Your task to perform on an android device: Find coffee shops on Maps Image 0: 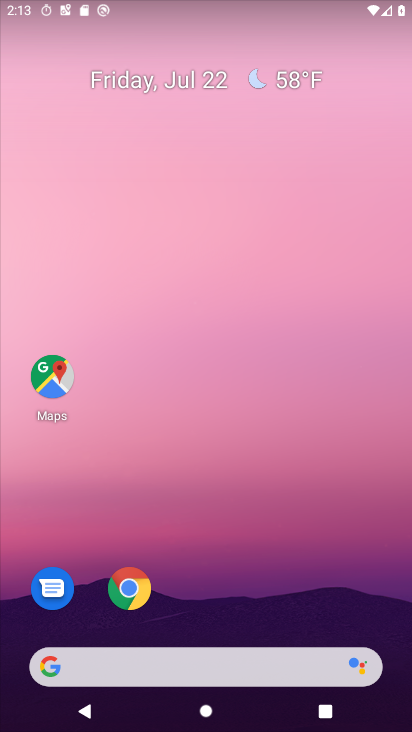
Step 0: press home button
Your task to perform on an android device: Find coffee shops on Maps Image 1: 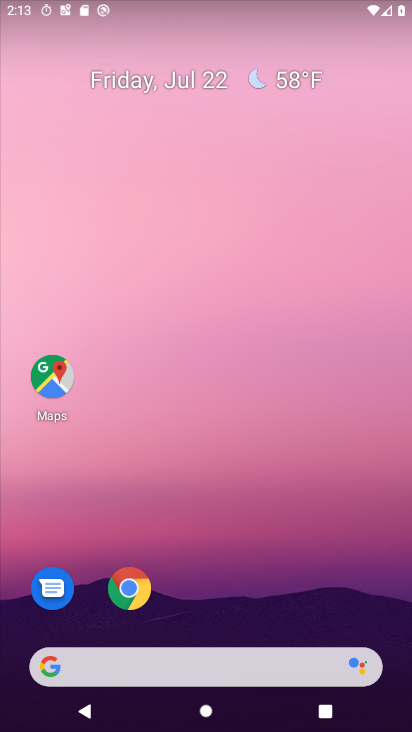
Step 1: click (49, 386)
Your task to perform on an android device: Find coffee shops on Maps Image 2: 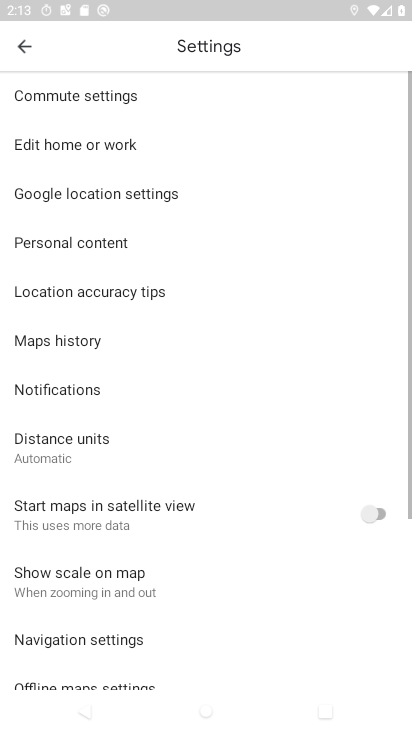
Step 2: click (22, 55)
Your task to perform on an android device: Find coffee shops on Maps Image 3: 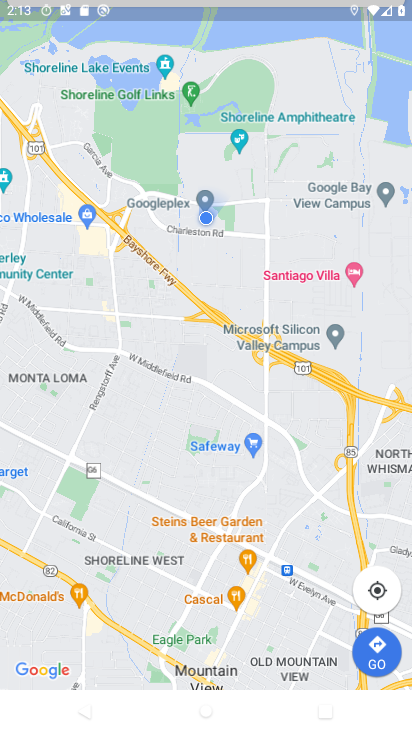
Step 3: click (22, 55)
Your task to perform on an android device: Find coffee shops on Maps Image 4: 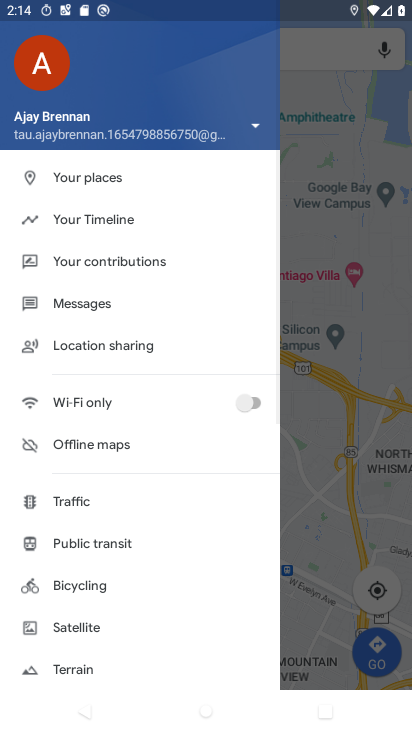
Step 4: click (345, 217)
Your task to perform on an android device: Find coffee shops on Maps Image 5: 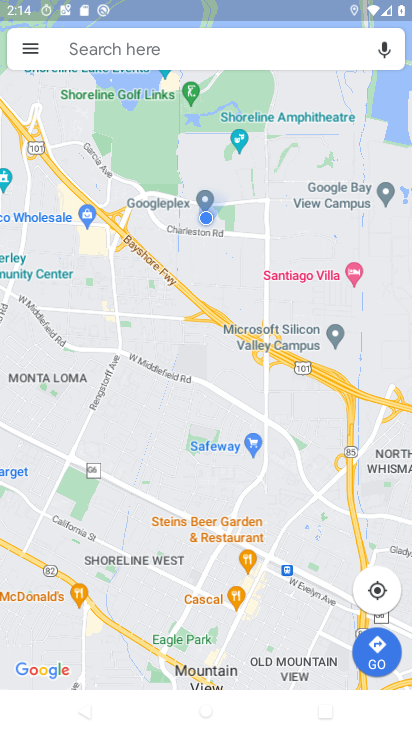
Step 5: click (310, 48)
Your task to perform on an android device: Find coffee shops on Maps Image 6: 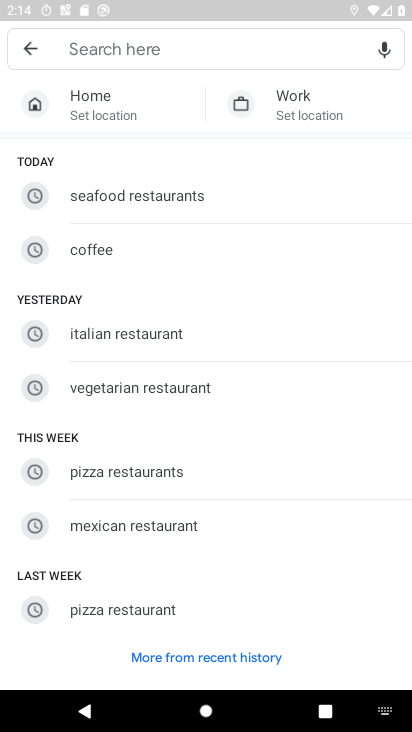
Step 6: type "coffee shops "
Your task to perform on an android device: Find coffee shops on Maps Image 7: 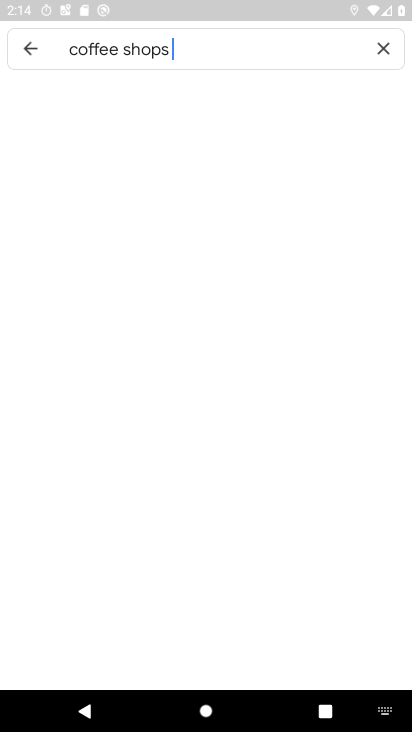
Step 7: type ""
Your task to perform on an android device: Find coffee shops on Maps Image 8: 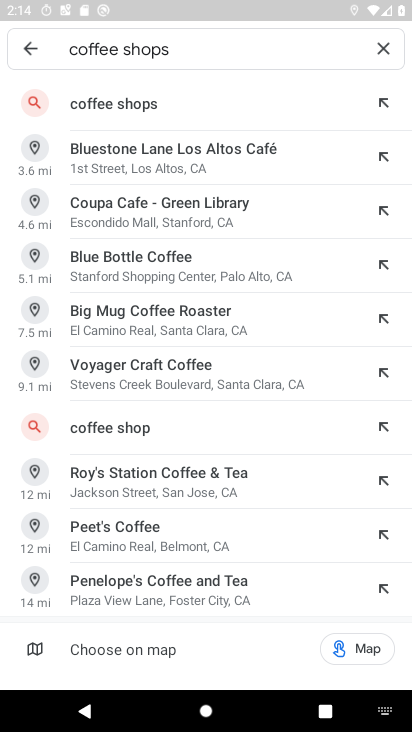
Step 8: click (130, 108)
Your task to perform on an android device: Find coffee shops on Maps Image 9: 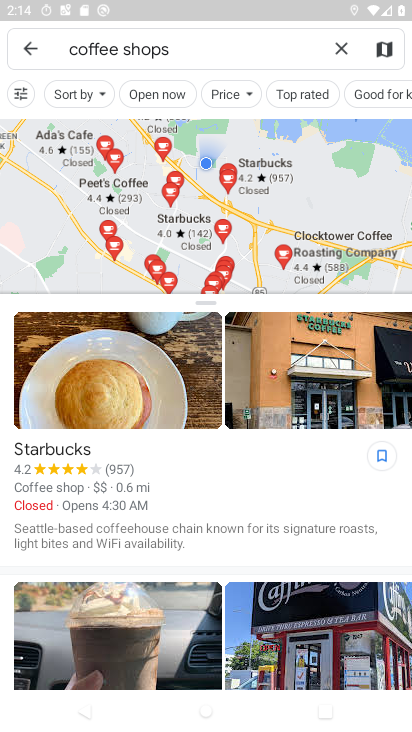
Step 9: task complete